Your task to perform on an android device: Open Reddit.com Image 0: 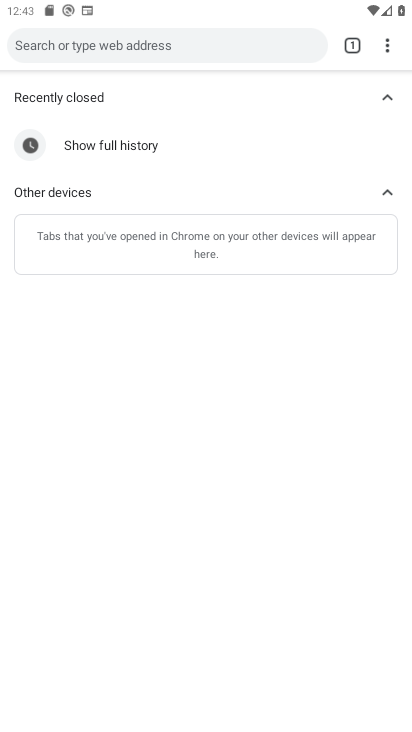
Step 0: press home button
Your task to perform on an android device: Open Reddit.com Image 1: 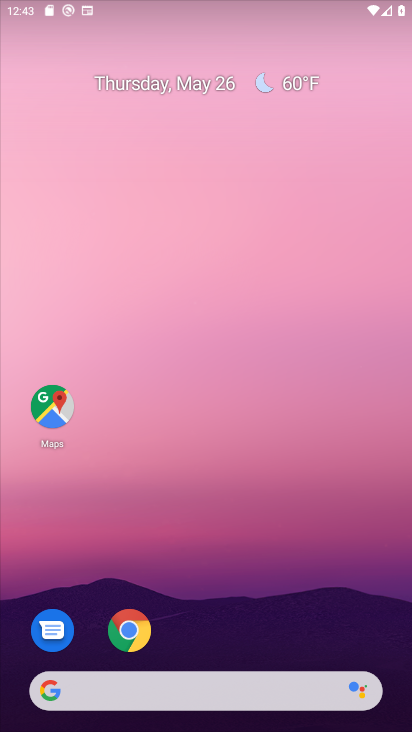
Step 1: drag from (307, 612) to (345, 40)
Your task to perform on an android device: Open Reddit.com Image 2: 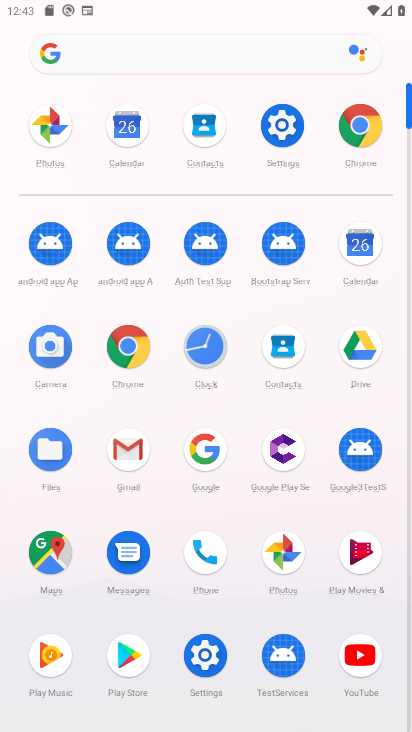
Step 2: click (372, 134)
Your task to perform on an android device: Open Reddit.com Image 3: 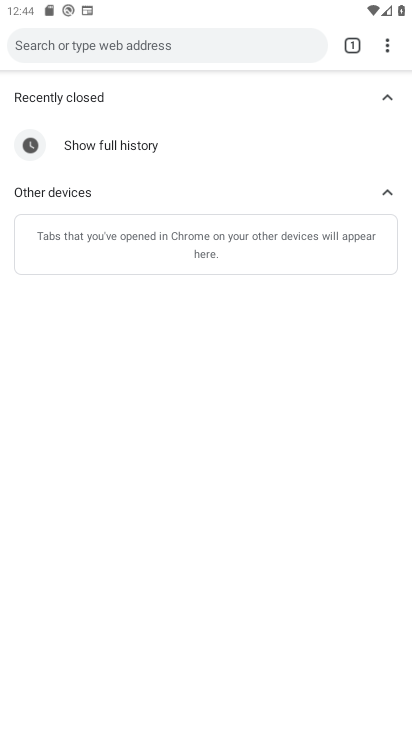
Step 3: click (195, 48)
Your task to perform on an android device: Open Reddit.com Image 4: 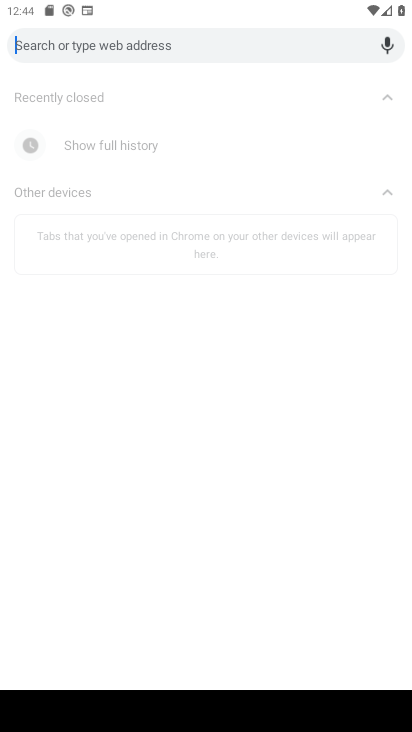
Step 4: type "reddit"
Your task to perform on an android device: Open Reddit.com Image 5: 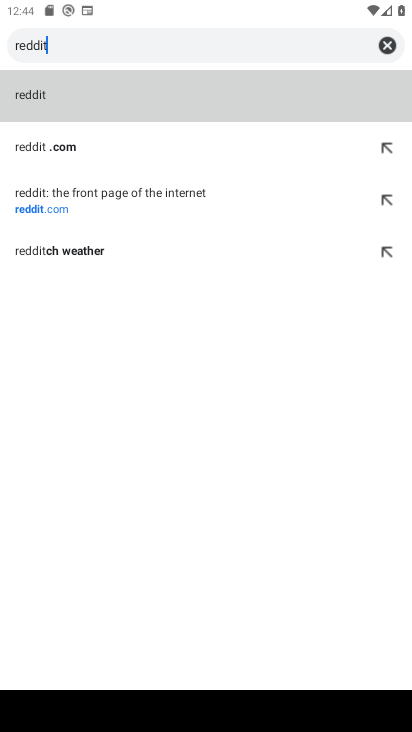
Step 5: click (45, 155)
Your task to perform on an android device: Open Reddit.com Image 6: 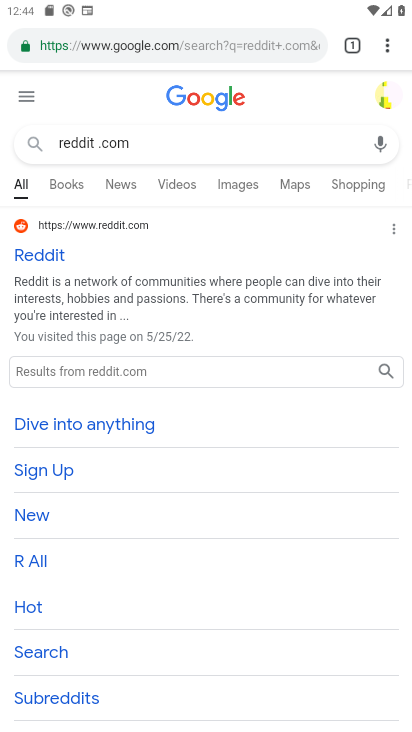
Step 6: click (32, 252)
Your task to perform on an android device: Open Reddit.com Image 7: 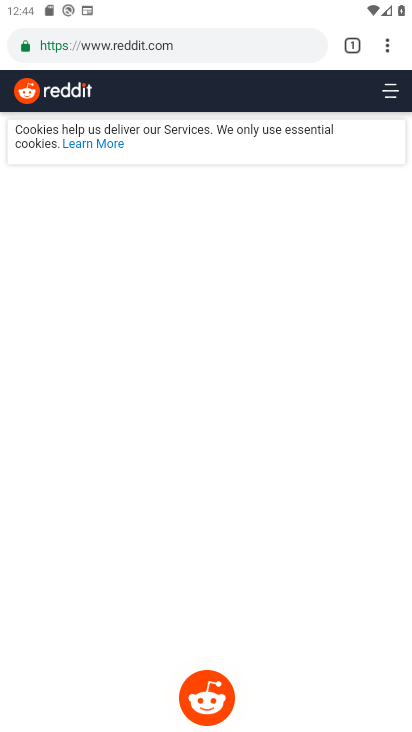
Step 7: task complete